Your task to perform on an android device: Open display settings Image 0: 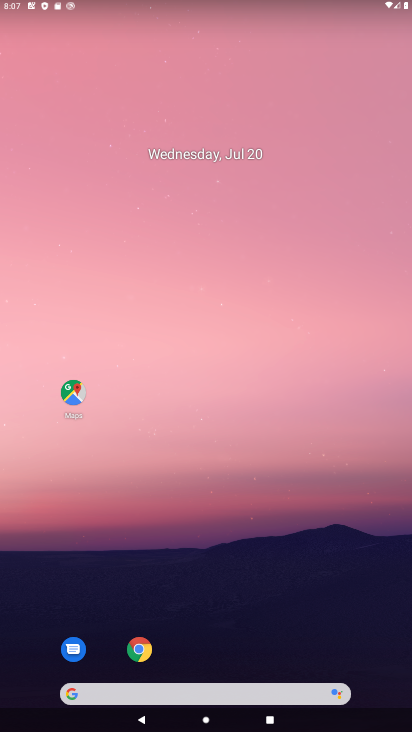
Step 0: drag from (202, 658) to (189, 74)
Your task to perform on an android device: Open display settings Image 1: 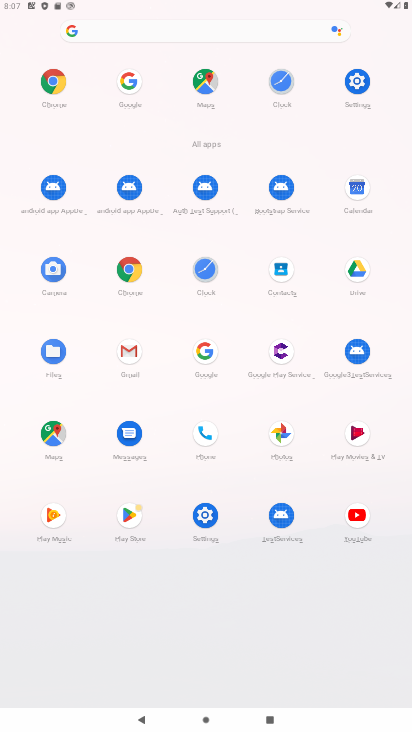
Step 1: click (361, 82)
Your task to perform on an android device: Open display settings Image 2: 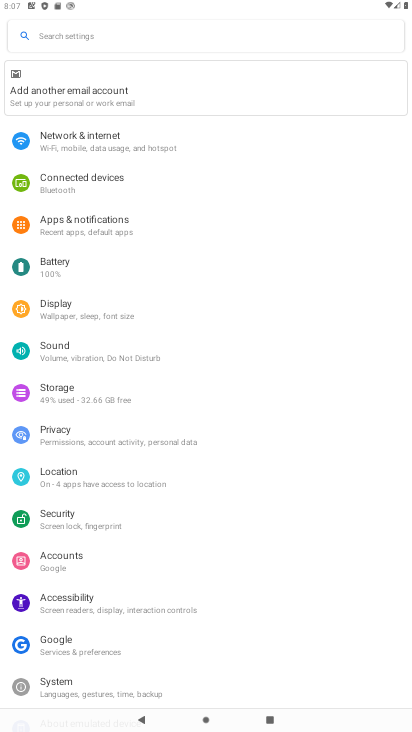
Step 2: click (139, 309)
Your task to perform on an android device: Open display settings Image 3: 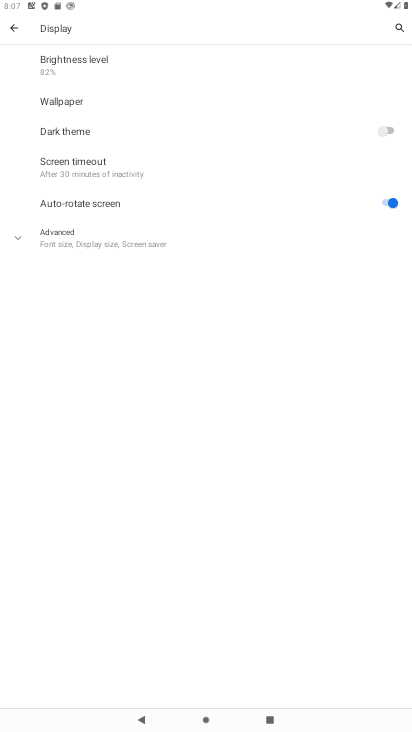
Step 3: click (66, 229)
Your task to perform on an android device: Open display settings Image 4: 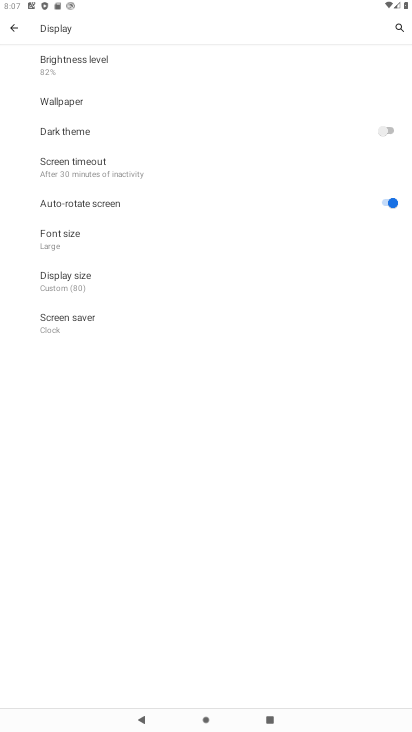
Step 4: task complete